Your task to perform on an android device: toggle location history Image 0: 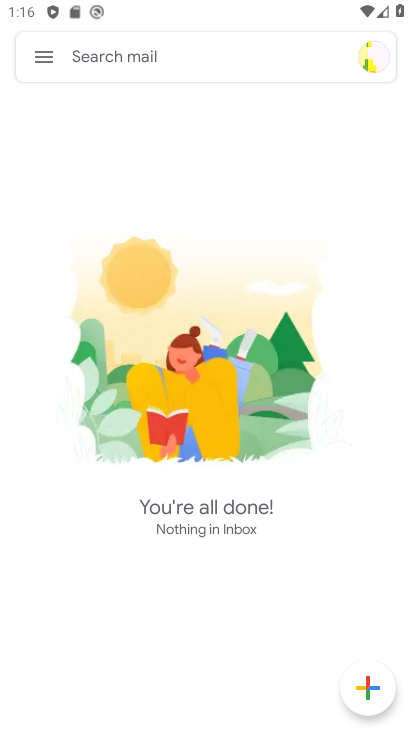
Step 0: press home button
Your task to perform on an android device: toggle location history Image 1: 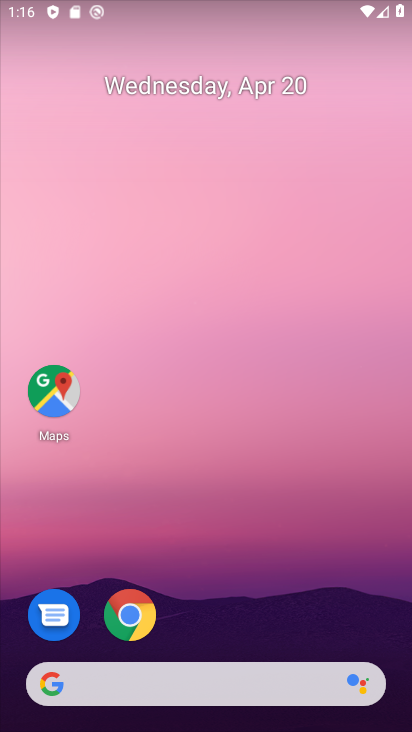
Step 1: drag from (213, 583) to (158, 27)
Your task to perform on an android device: toggle location history Image 2: 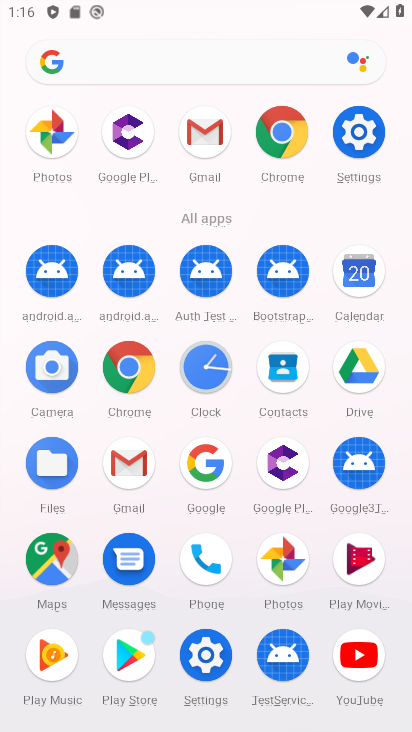
Step 2: click (366, 145)
Your task to perform on an android device: toggle location history Image 3: 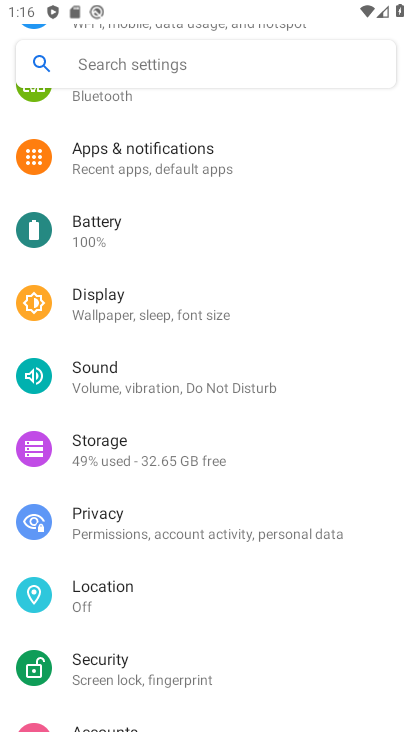
Step 3: click (181, 585)
Your task to perform on an android device: toggle location history Image 4: 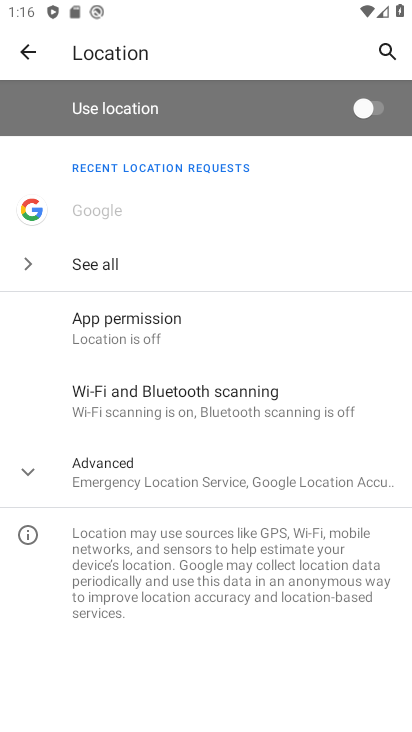
Step 4: click (167, 484)
Your task to perform on an android device: toggle location history Image 5: 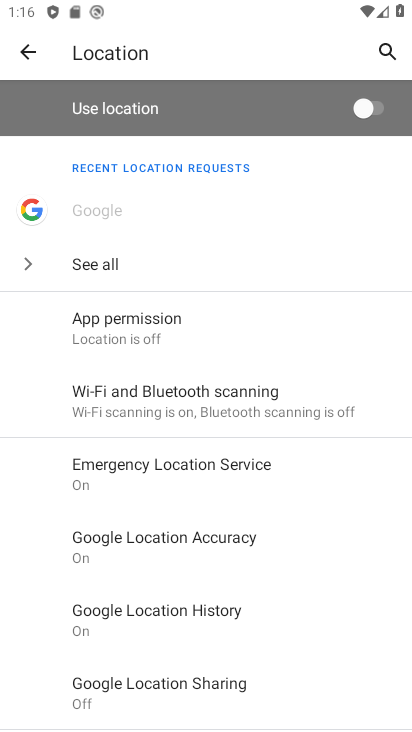
Step 5: click (204, 609)
Your task to perform on an android device: toggle location history Image 6: 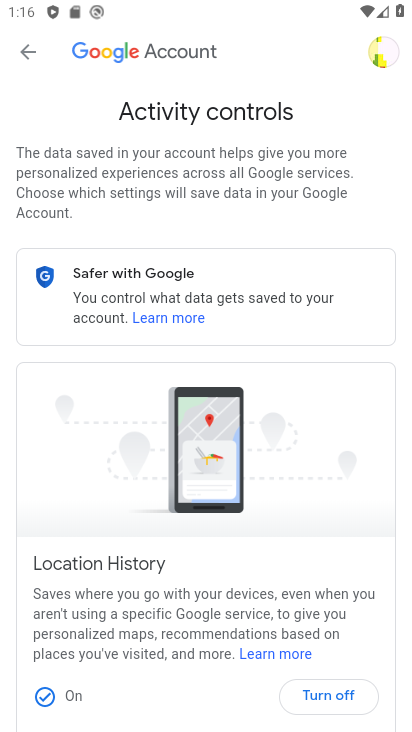
Step 6: click (350, 693)
Your task to perform on an android device: toggle location history Image 7: 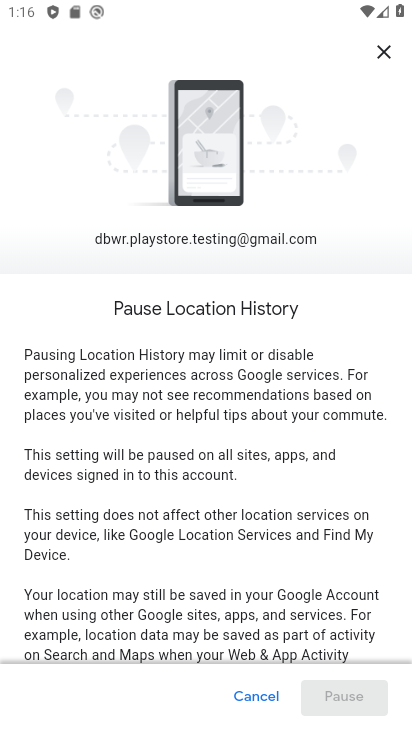
Step 7: drag from (303, 621) to (194, 252)
Your task to perform on an android device: toggle location history Image 8: 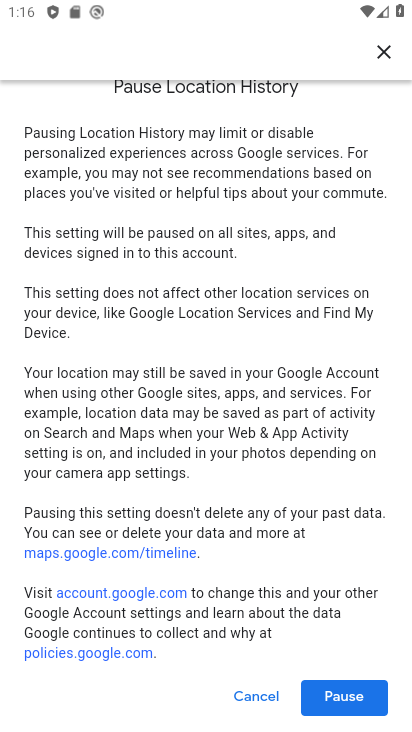
Step 8: click (348, 706)
Your task to perform on an android device: toggle location history Image 9: 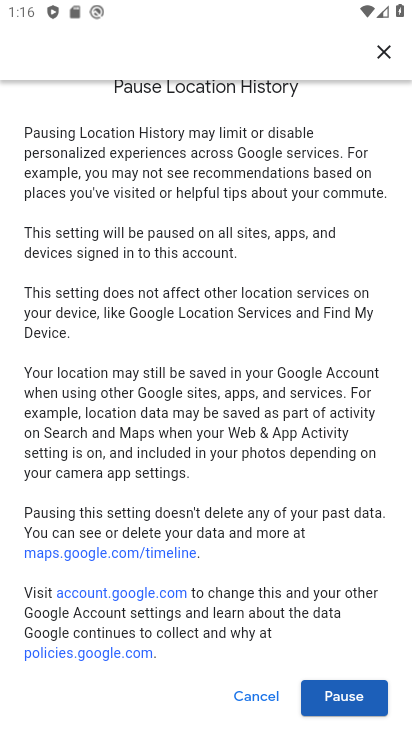
Step 9: click (347, 685)
Your task to perform on an android device: toggle location history Image 10: 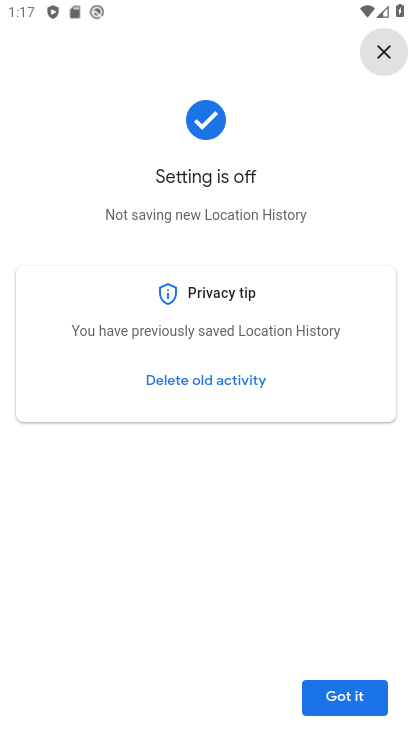
Step 10: click (353, 690)
Your task to perform on an android device: toggle location history Image 11: 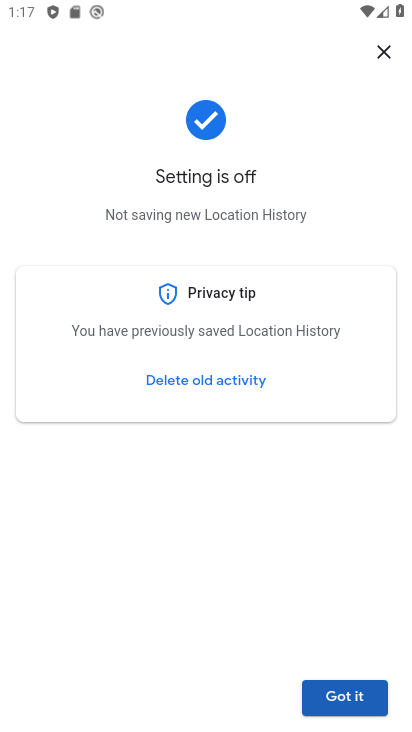
Step 11: task complete